Your task to perform on an android device: Search for sushi restaurants on Maps Image 0: 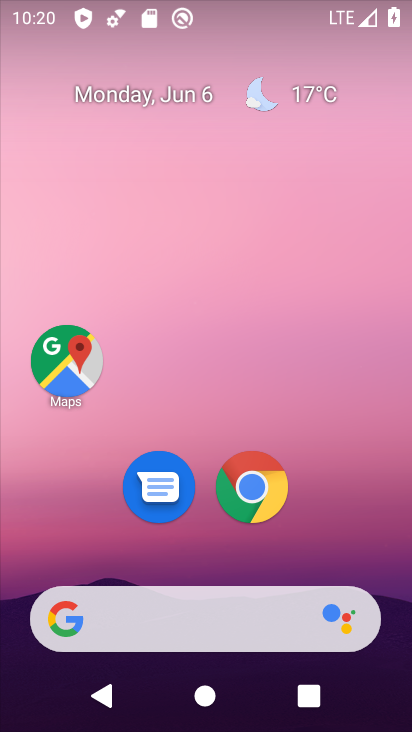
Step 0: click (75, 368)
Your task to perform on an android device: Search for sushi restaurants on Maps Image 1: 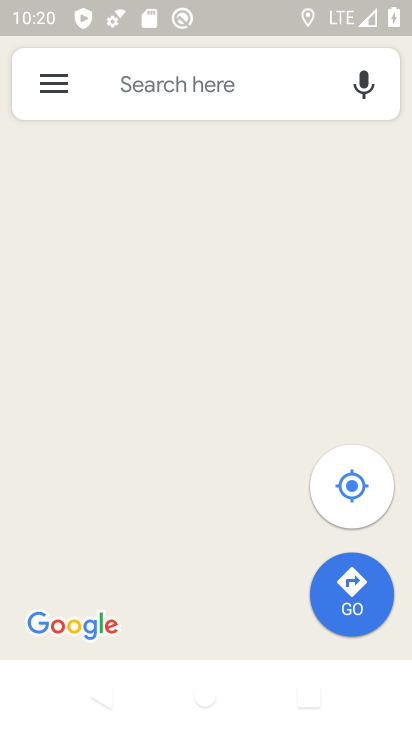
Step 1: click (181, 101)
Your task to perform on an android device: Search for sushi restaurants on Maps Image 2: 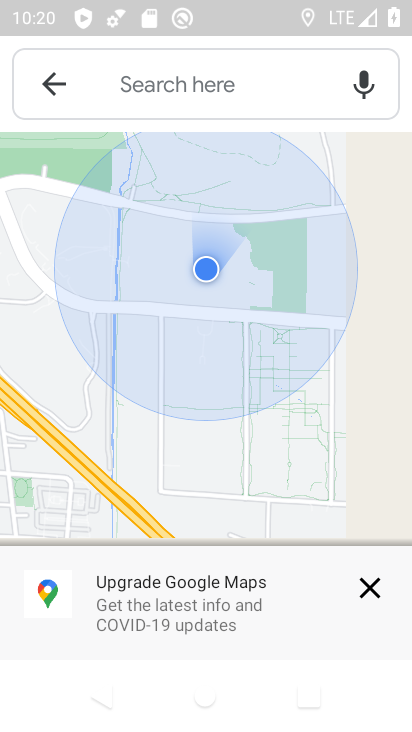
Step 2: type "sushi restaurants "
Your task to perform on an android device: Search for sushi restaurants on Maps Image 3: 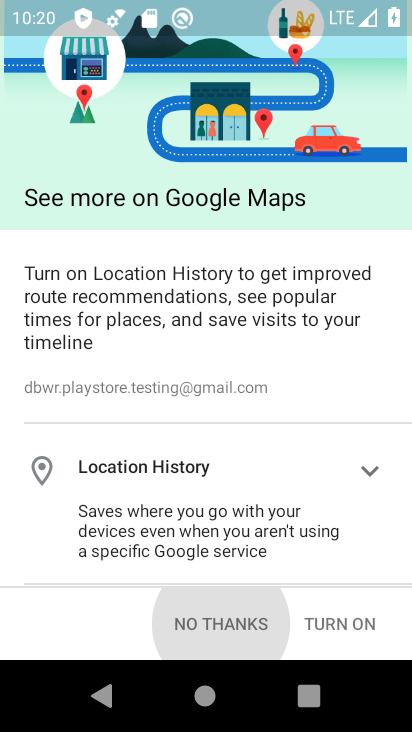
Step 3: click (187, 611)
Your task to perform on an android device: Search for sushi restaurants on Maps Image 4: 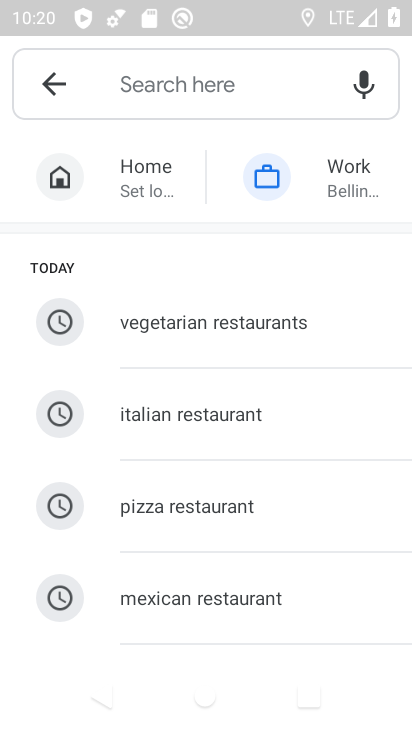
Step 4: click (217, 97)
Your task to perform on an android device: Search for sushi restaurants on Maps Image 5: 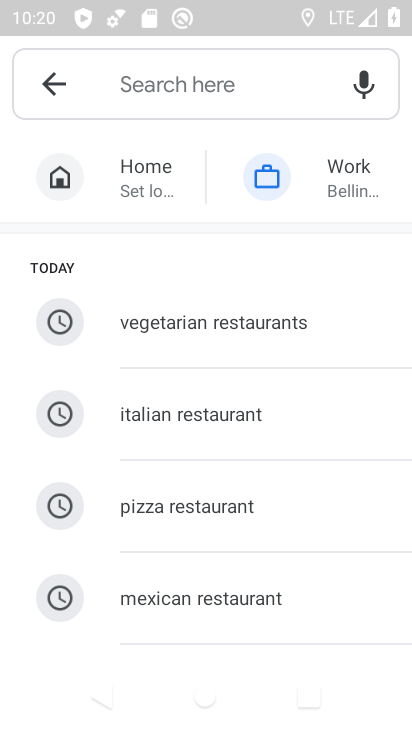
Step 5: click (217, 97)
Your task to perform on an android device: Search for sushi restaurants on Maps Image 6: 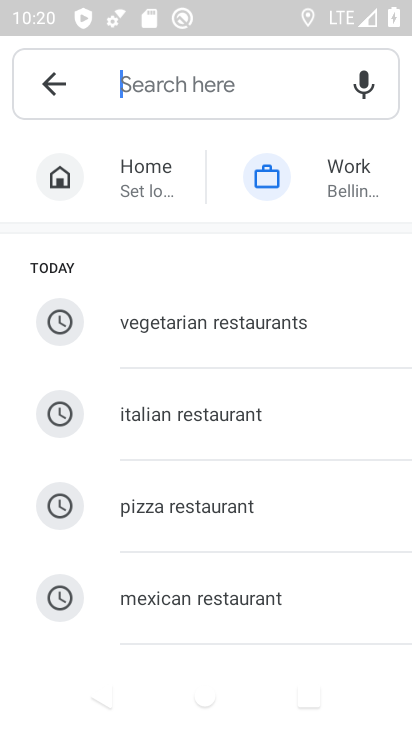
Step 6: click (217, 97)
Your task to perform on an android device: Search for sushi restaurants on Maps Image 7: 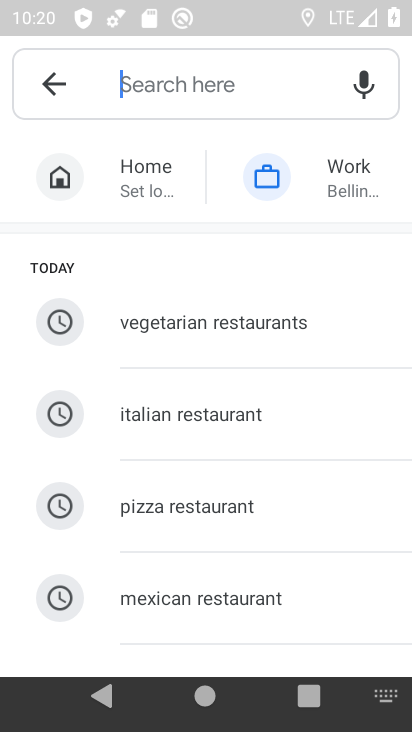
Step 7: click (217, 97)
Your task to perform on an android device: Search for sushi restaurants on Maps Image 8: 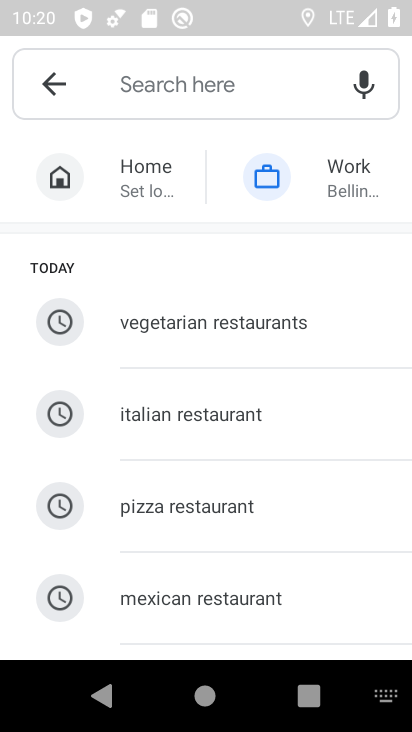
Step 8: click (217, 97)
Your task to perform on an android device: Search for sushi restaurants on Maps Image 9: 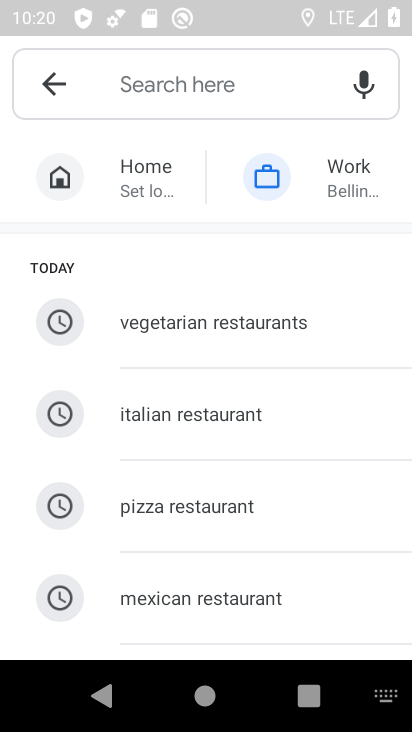
Step 9: type "sushi restaurants "
Your task to perform on an android device: Search for sushi restaurants on Maps Image 10: 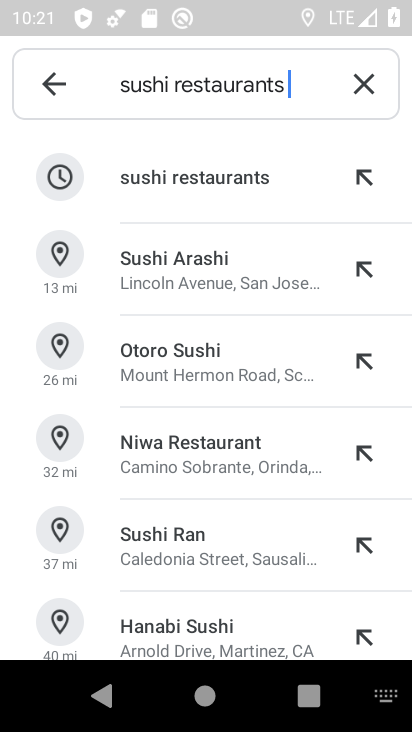
Step 10: click (286, 187)
Your task to perform on an android device: Search for sushi restaurants on Maps Image 11: 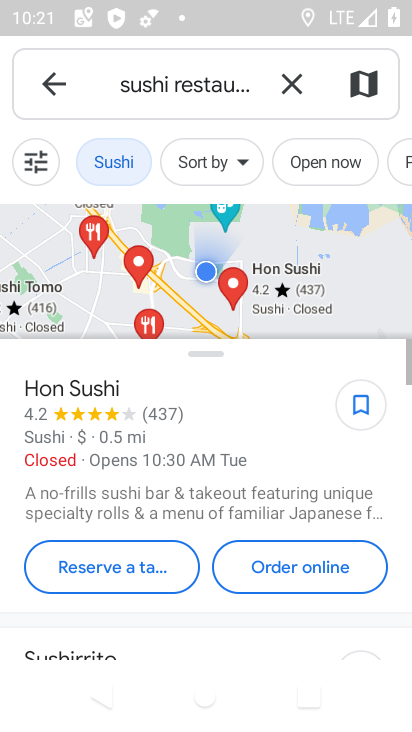
Step 11: task complete